Your task to perform on an android device: change the upload size in google photos Image 0: 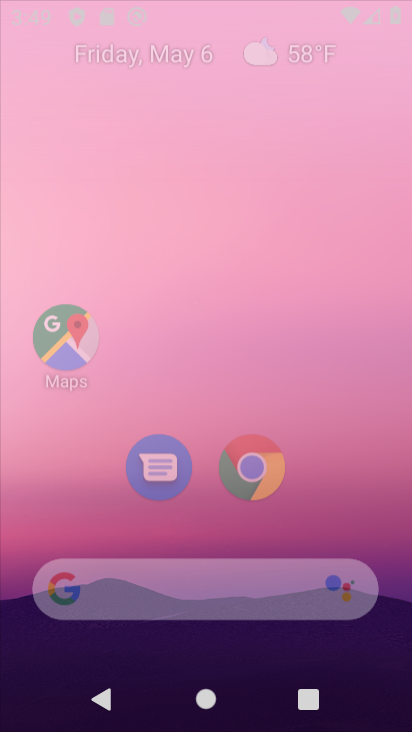
Step 0: click (74, 365)
Your task to perform on an android device: change the upload size in google photos Image 1: 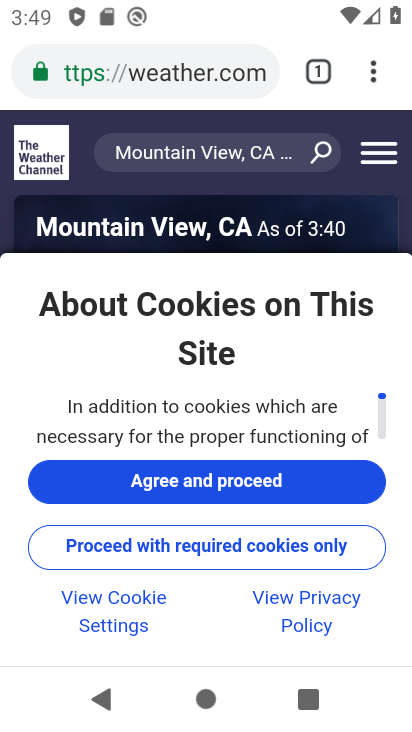
Step 1: press home button
Your task to perform on an android device: change the upload size in google photos Image 2: 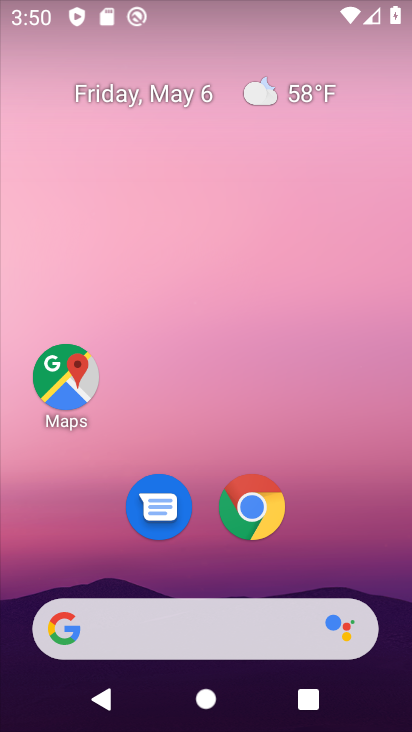
Step 2: drag from (337, 551) to (243, 148)
Your task to perform on an android device: change the upload size in google photos Image 3: 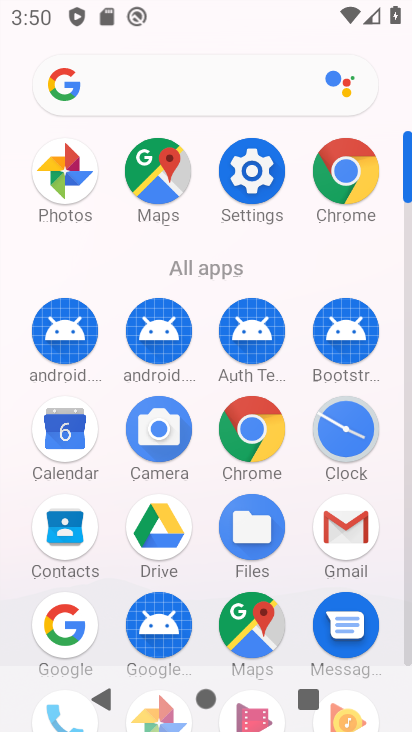
Step 3: click (56, 154)
Your task to perform on an android device: change the upload size in google photos Image 4: 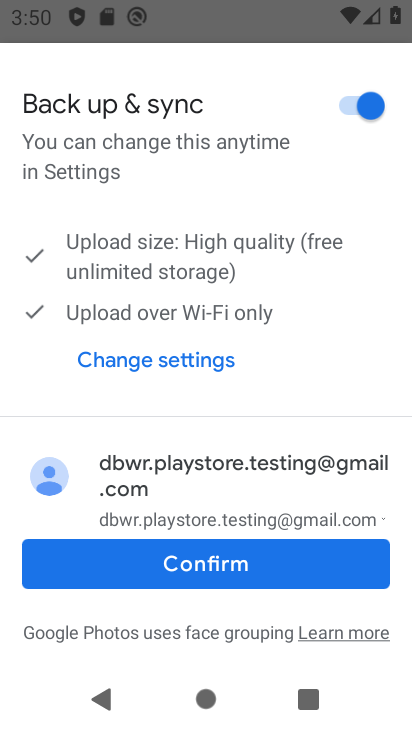
Step 4: click (236, 554)
Your task to perform on an android device: change the upload size in google photos Image 5: 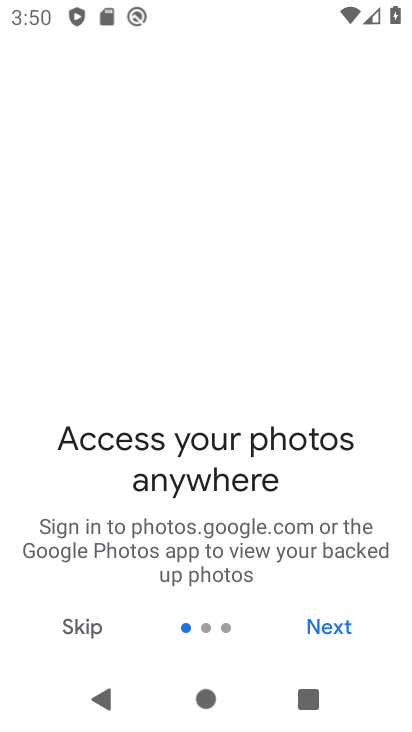
Step 5: click (317, 637)
Your task to perform on an android device: change the upload size in google photos Image 6: 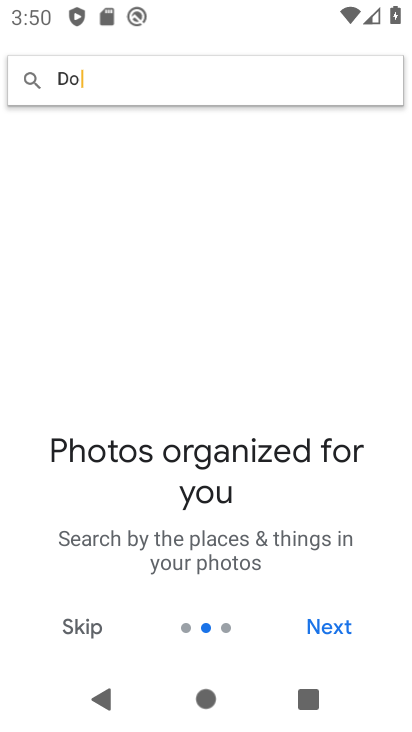
Step 6: click (317, 637)
Your task to perform on an android device: change the upload size in google photos Image 7: 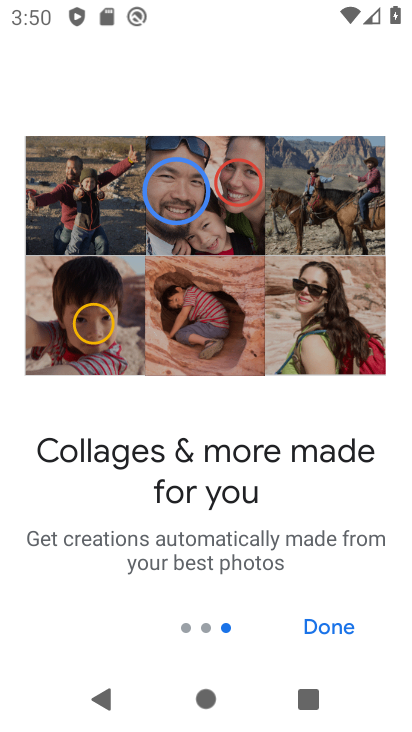
Step 7: click (317, 637)
Your task to perform on an android device: change the upload size in google photos Image 8: 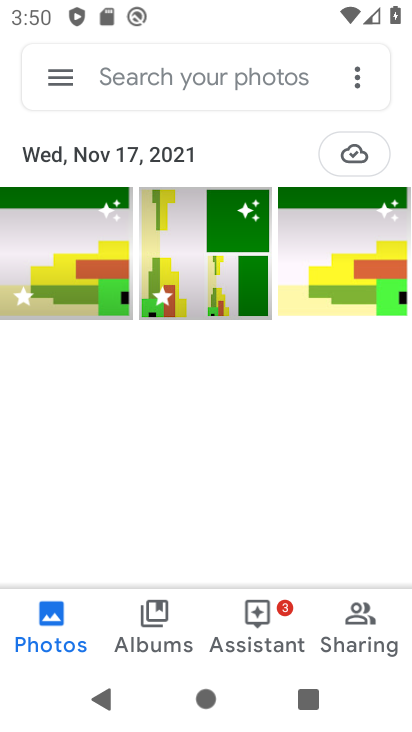
Step 8: click (71, 71)
Your task to perform on an android device: change the upload size in google photos Image 9: 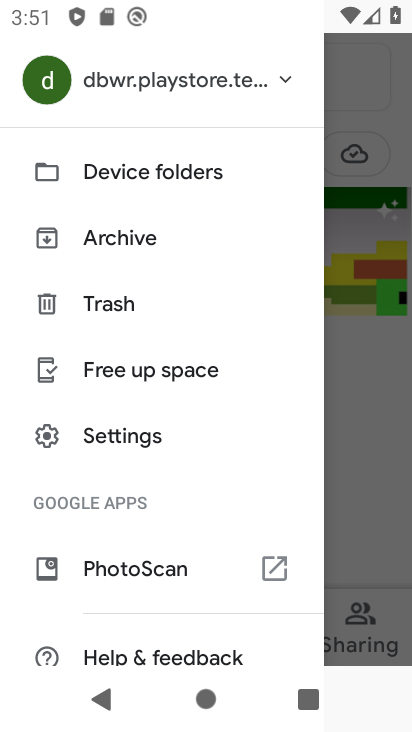
Step 9: click (170, 434)
Your task to perform on an android device: change the upload size in google photos Image 10: 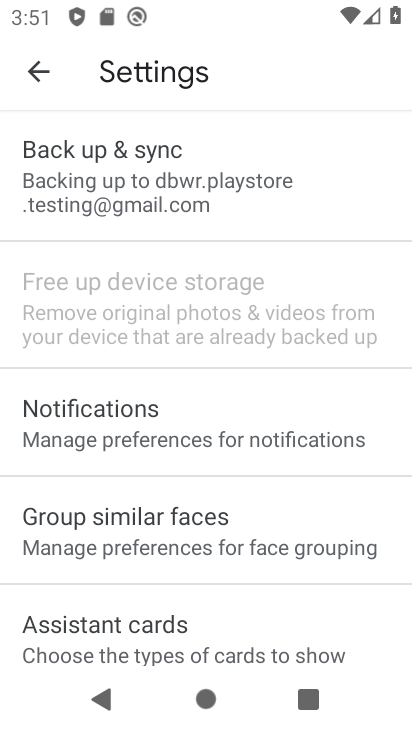
Step 10: click (257, 156)
Your task to perform on an android device: change the upload size in google photos Image 11: 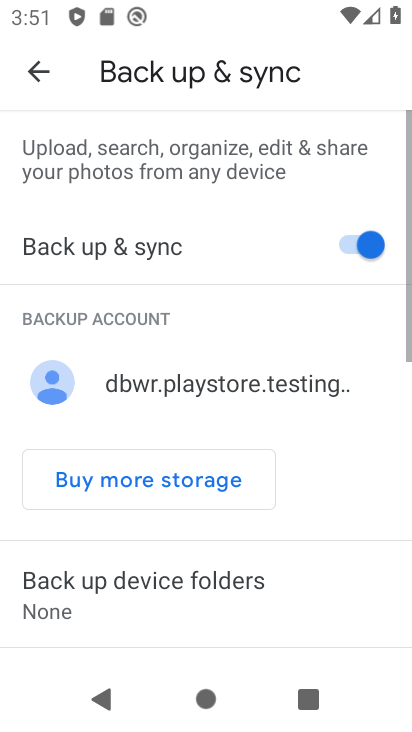
Step 11: drag from (312, 512) to (249, 41)
Your task to perform on an android device: change the upload size in google photos Image 12: 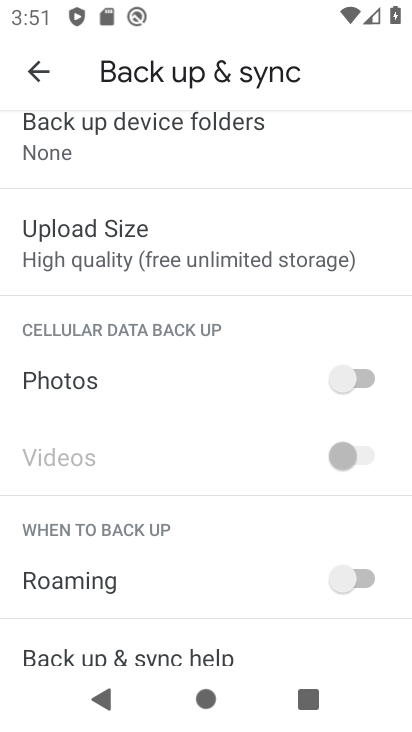
Step 12: click (243, 263)
Your task to perform on an android device: change the upload size in google photos Image 13: 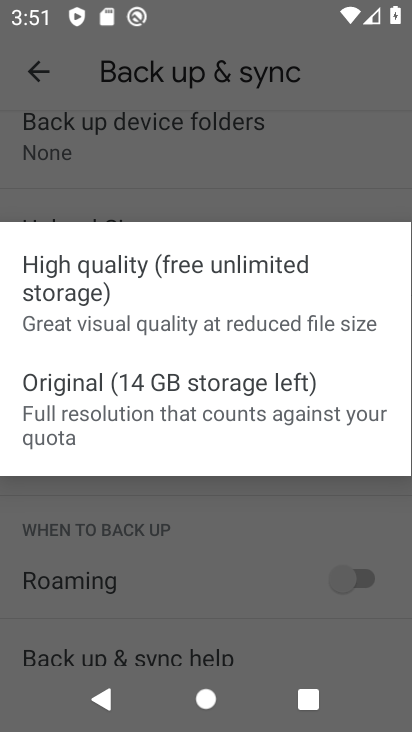
Step 13: click (299, 423)
Your task to perform on an android device: change the upload size in google photos Image 14: 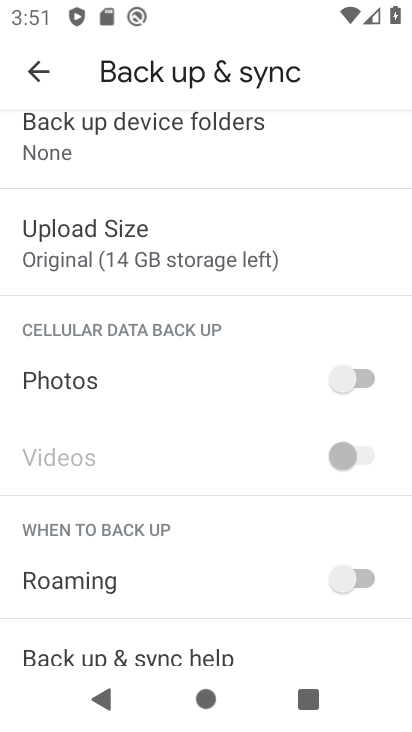
Step 14: task complete